Your task to perform on an android device: open app "WhatsApp Messenger" (install if not already installed) and enter user name: "cartons@outlook.com" and password: "approximated" Image 0: 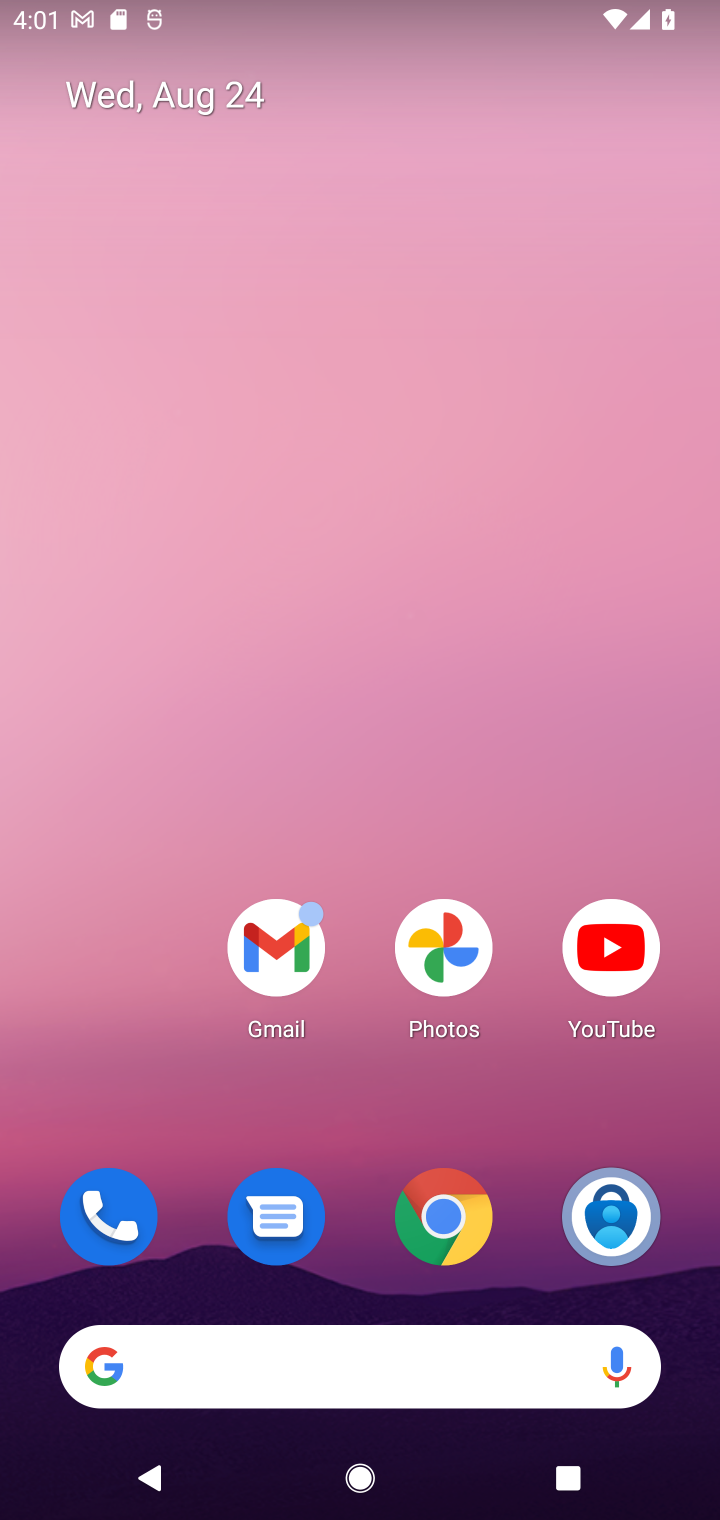
Step 0: drag from (381, 1066) to (331, 36)
Your task to perform on an android device: open app "WhatsApp Messenger" (install if not already installed) and enter user name: "cartons@outlook.com" and password: "approximated" Image 1: 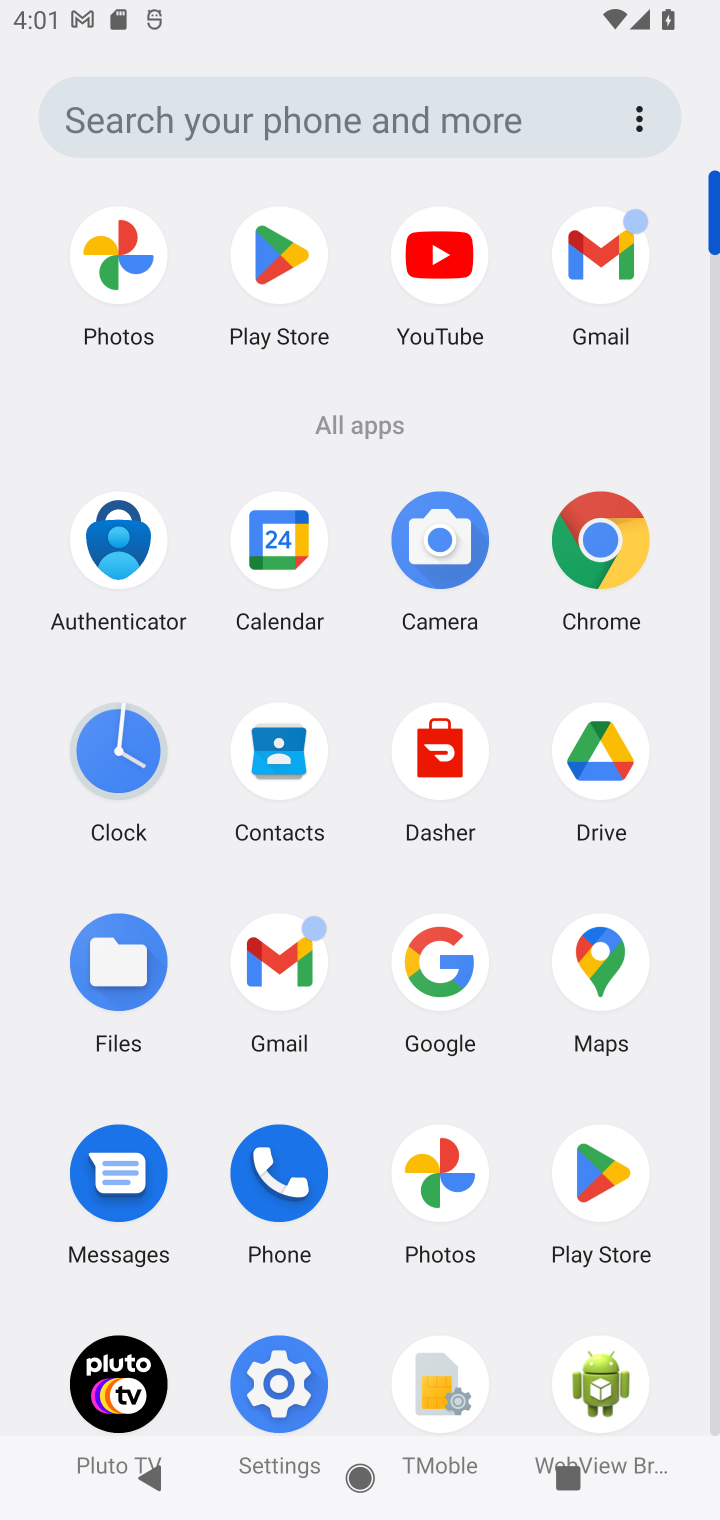
Step 1: click (258, 295)
Your task to perform on an android device: open app "WhatsApp Messenger" (install if not already installed) and enter user name: "cartons@outlook.com" and password: "approximated" Image 2: 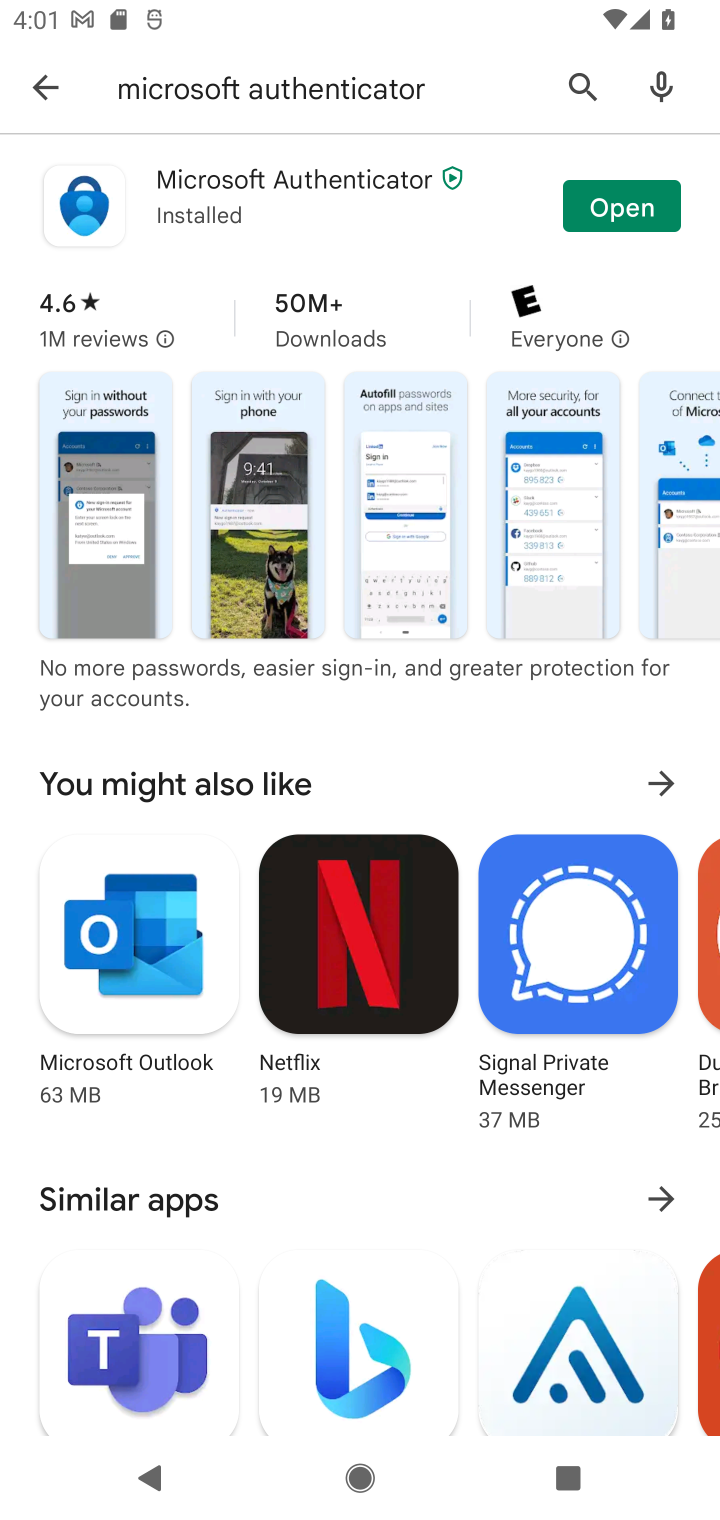
Step 2: click (568, 83)
Your task to perform on an android device: open app "WhatsApp Messenger" (install if not already installed) and enter user name: "cartons@outlook.com" and password: "approximated" Image 3: 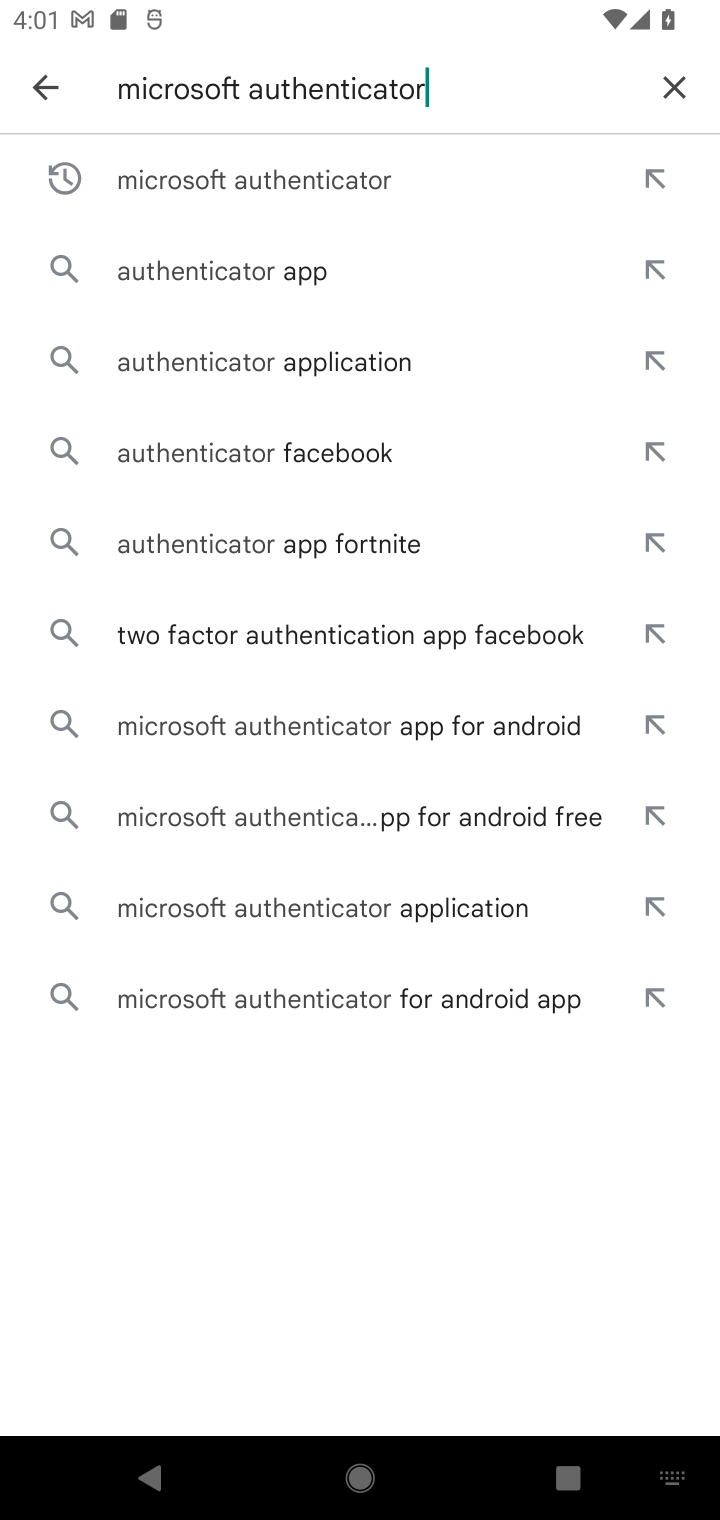
Step 3: click (670, 83)
Your task to perform on an android device: open app "WhatsApp Messenger" (install if not already installed) and enter user name: "cartons@outlook.com" and password: "approximated" Image 4: 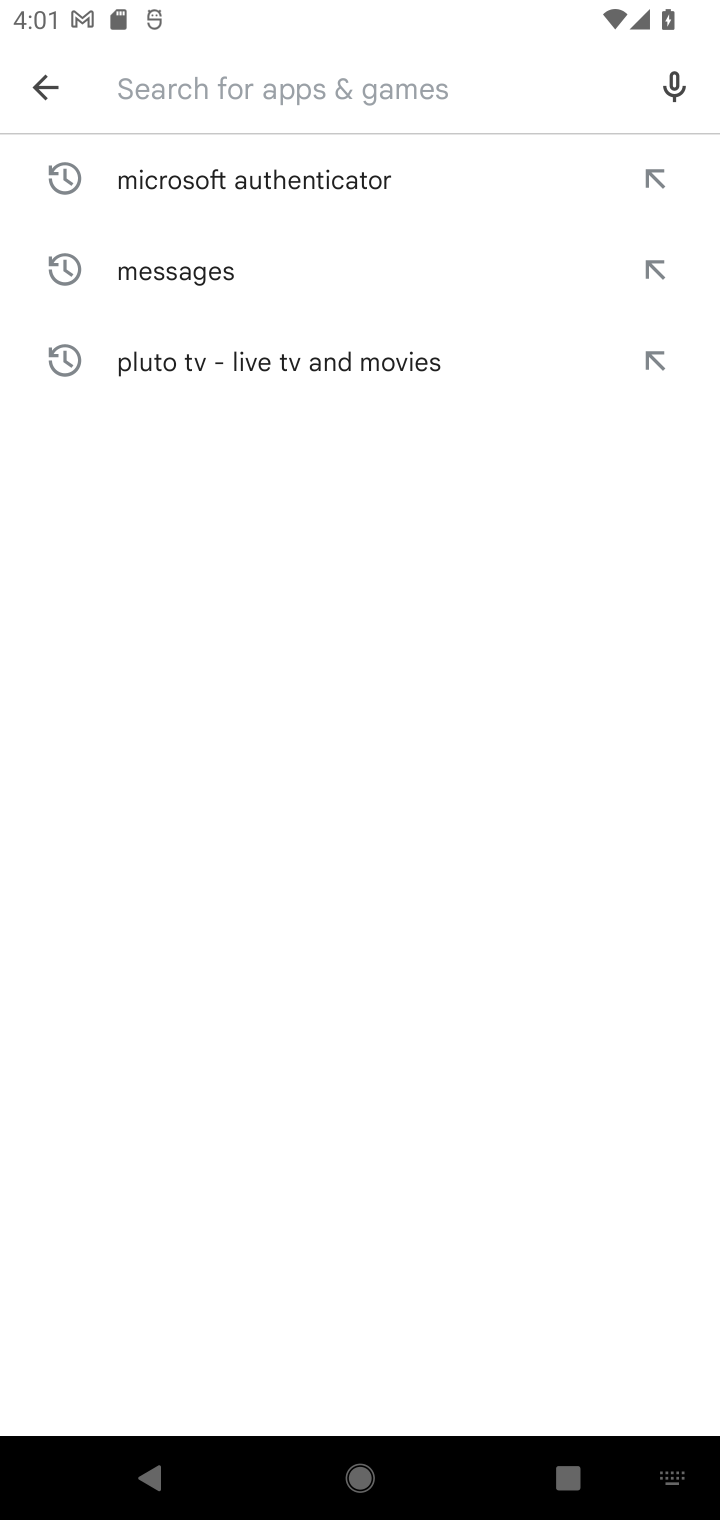
Step 4: type "WhatsApp Messenger"
Your task to perform on an android device: open app "WhatsApp Messenger" (install if not already installed) and enter user name: "cartons@outlook.com" and password: "approximated" Image 5: 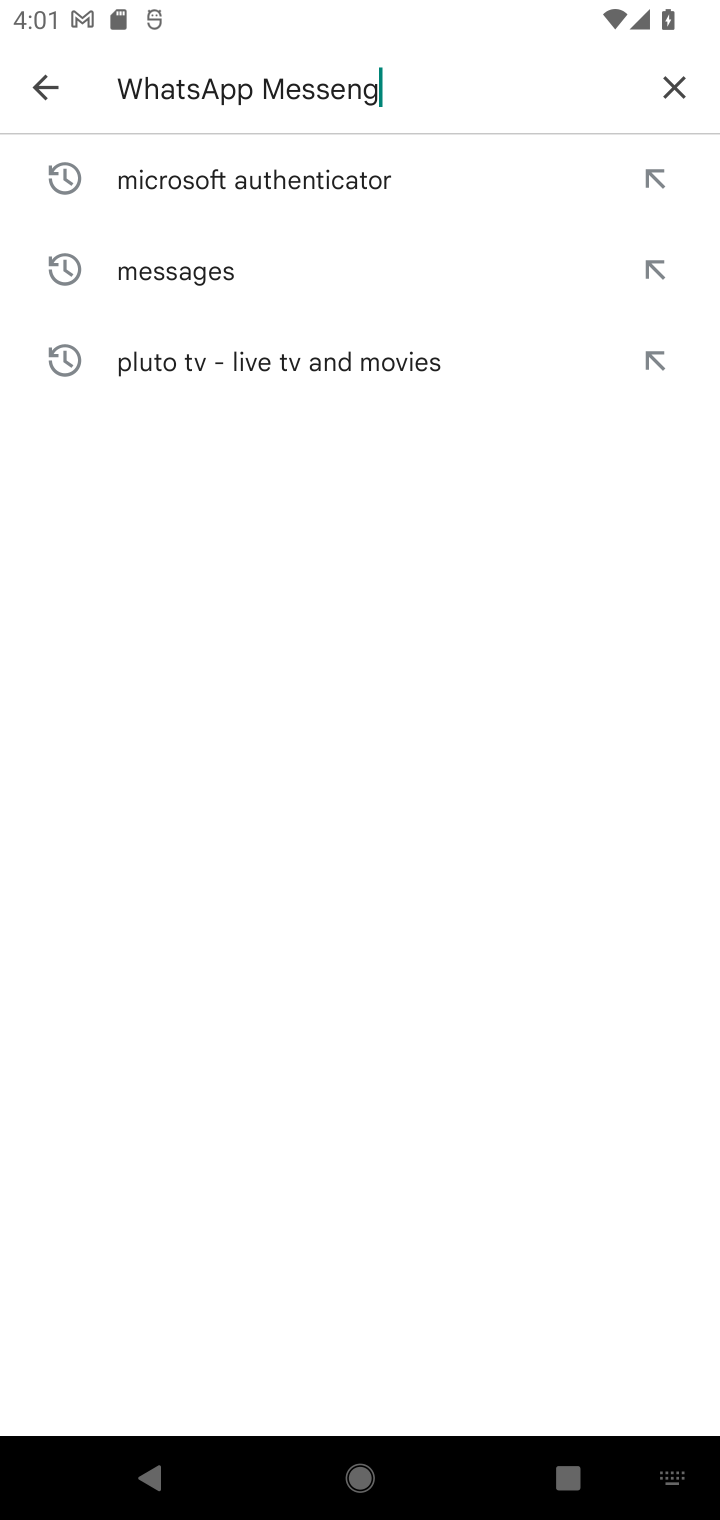
Step 5: type ""
Your task to perform on an android device: open app "WhatsApp Messenger" (install if not already installed) and enter user name: "cartons@outlook.com" and password: "approximated" Image 6: 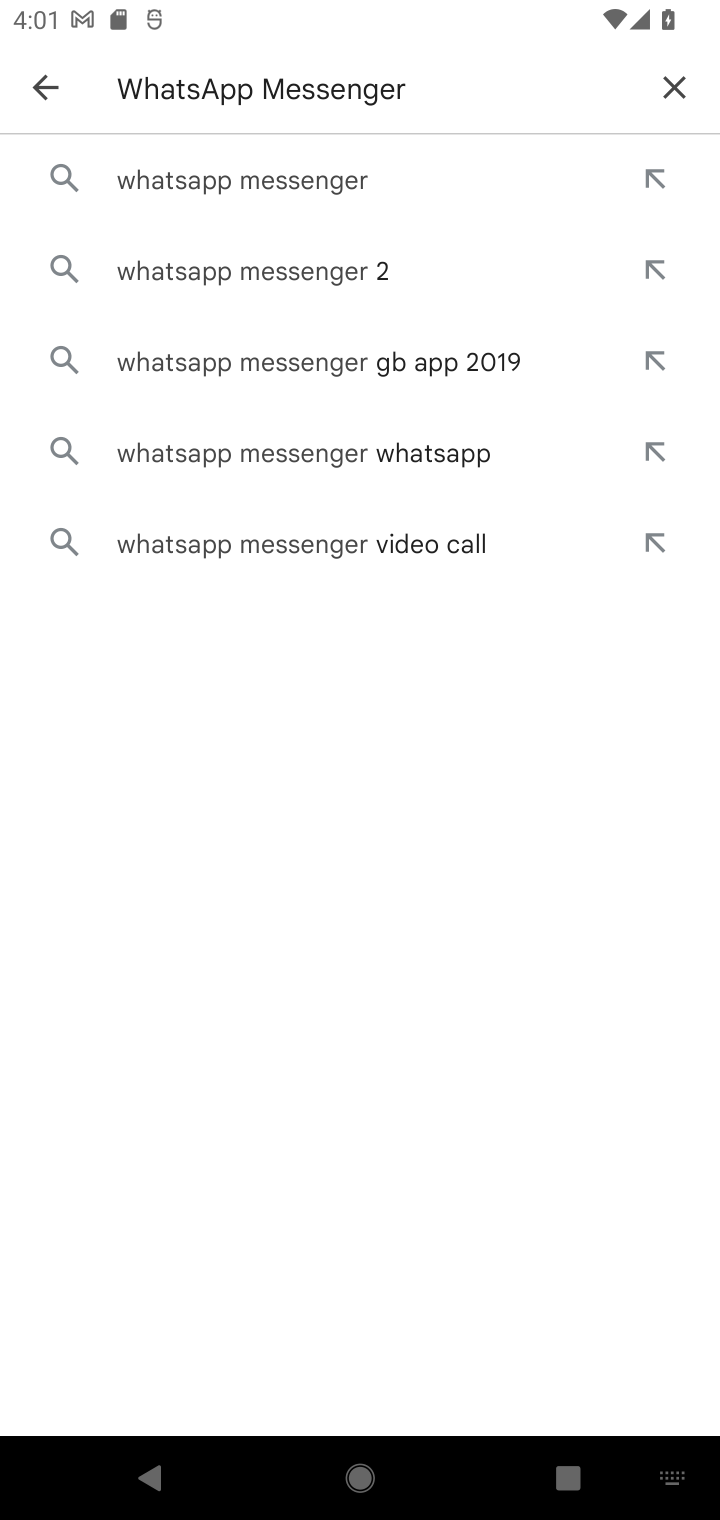
Step 6: click (269, 172)
Your task to perform on an android device: open app "WhatsApp Messenger" (install if not already installed) and enter user name: "cartons@outlook.com" and password: "approximated" Image 7: 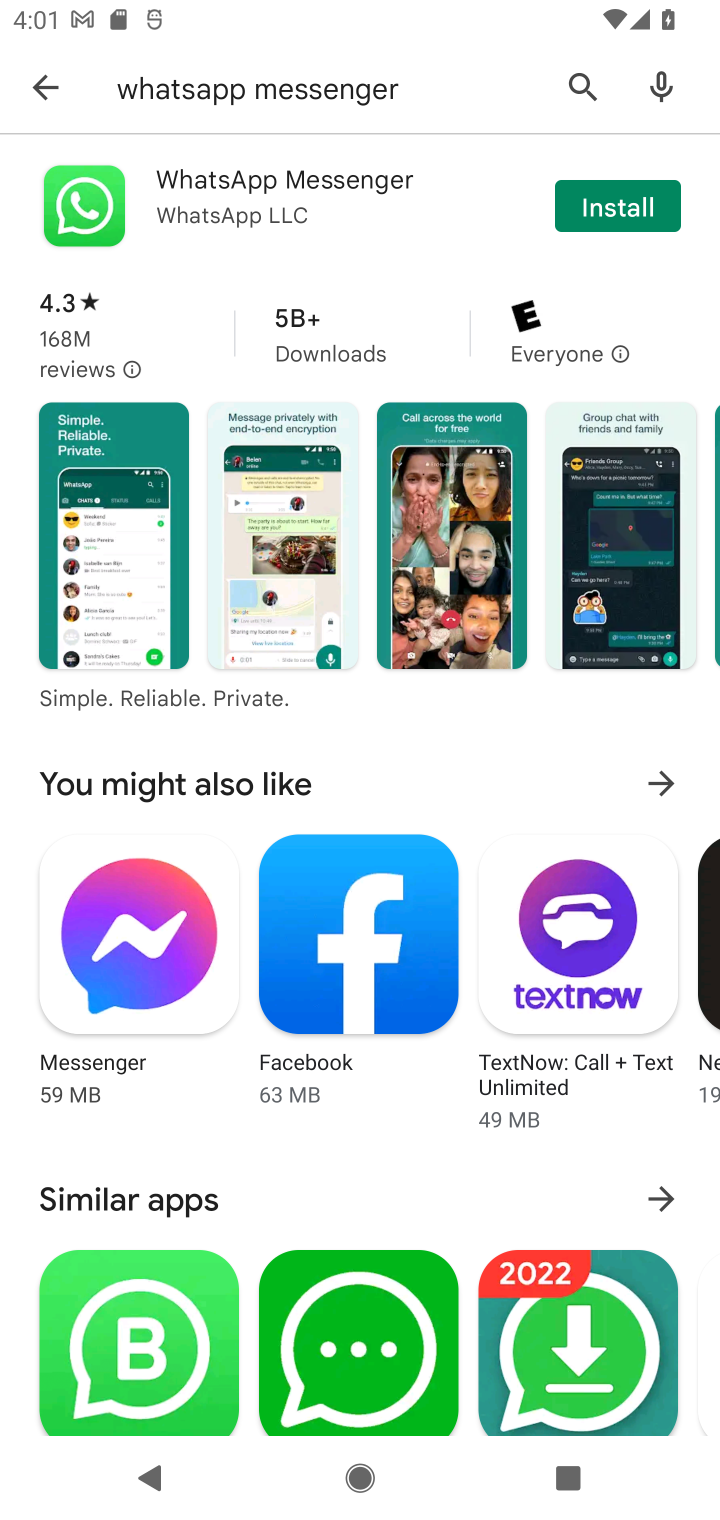
Step 7: click (596, 202)
Your task to perform on an android device: open app "WhatsApp Messenger" (install if not already installed) and enter user name: "cartons@outlook.com" and password: "approximated" Image 8: 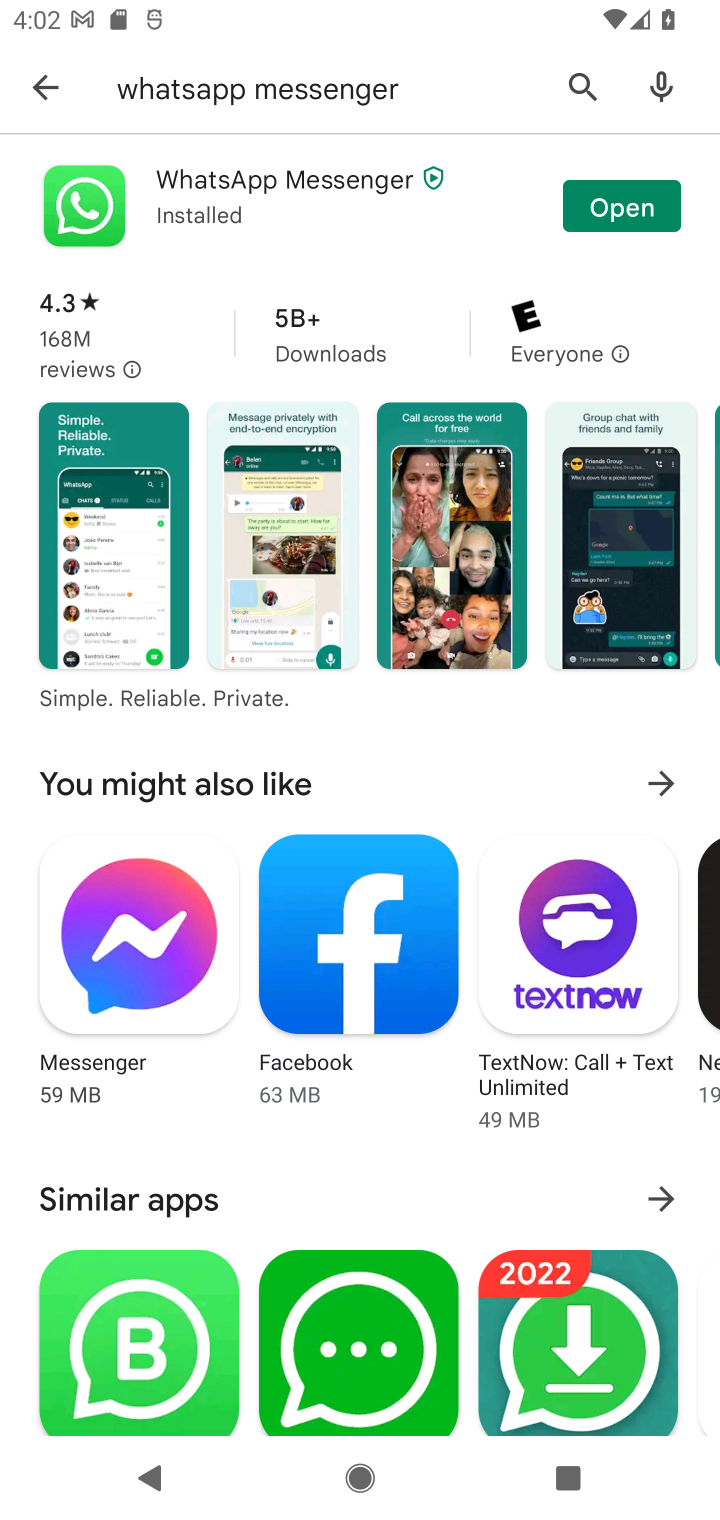
Step 8: click (594, 200)
Your task to perform on an android device: open app "WhatsApp Messenger" (install if not already installed) and enter user name: "cartons@outlook.com" and password: "approximated" Image 9: 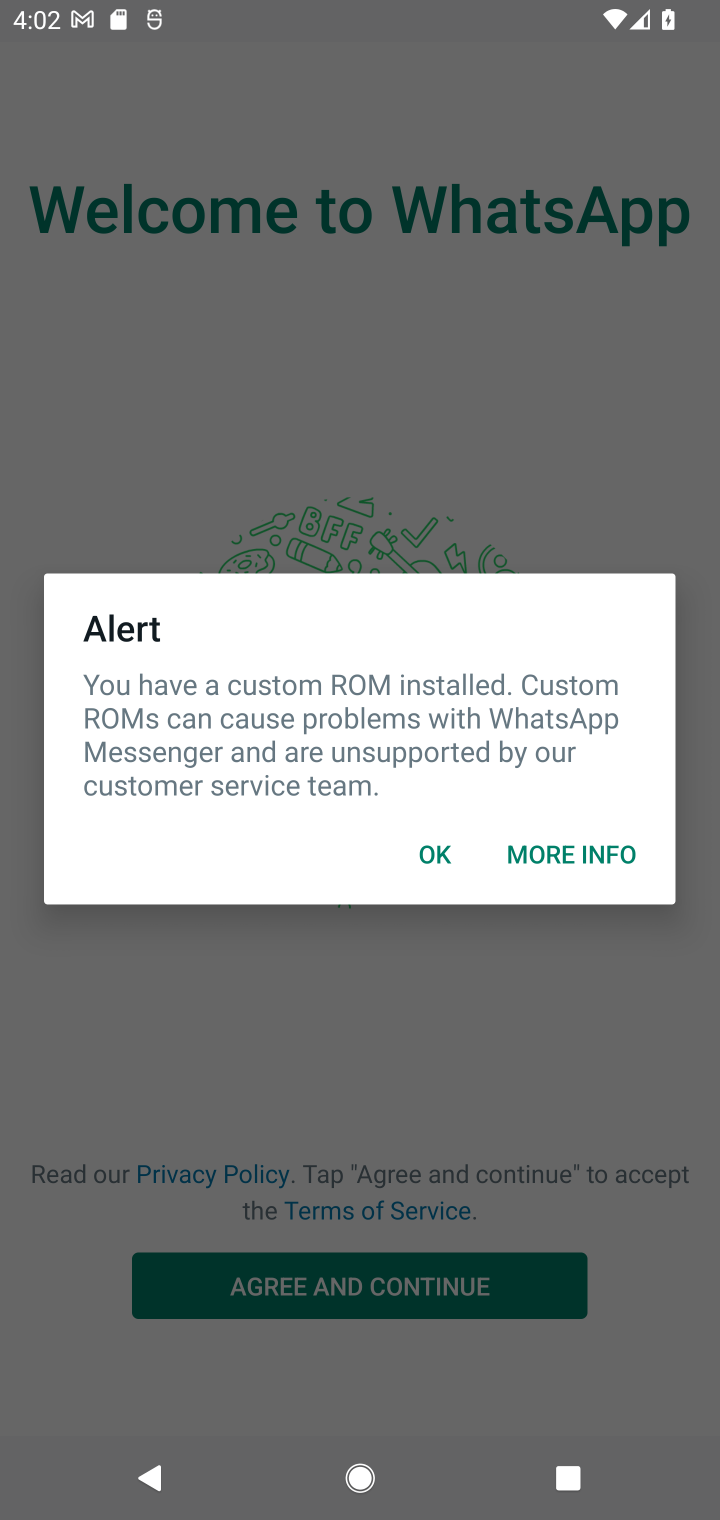
Step 9: task complete